Your task to perform on an android device: turn on improve location accuracy Image 0: 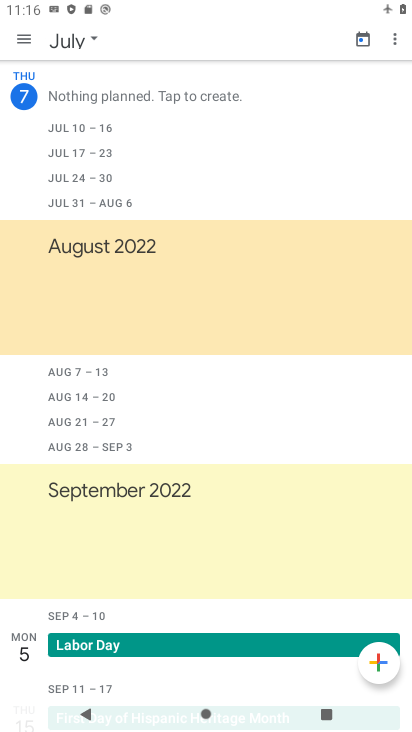
Step 0: press home button
Your task to perform on an android device: turn on improve location accuracy Image 1: 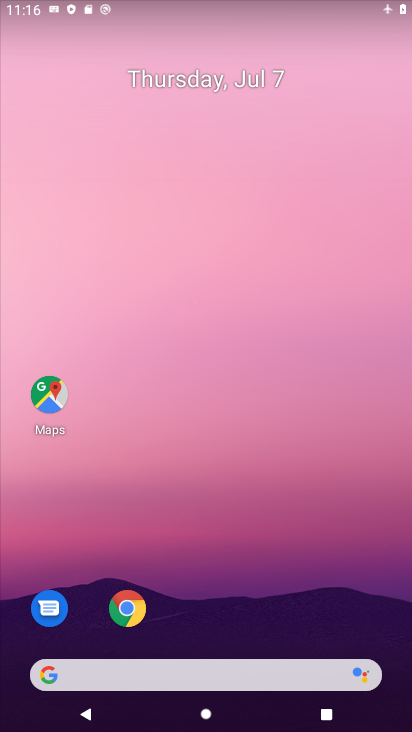
Step 1: drag from (229, 613) to (300, 7)
Your task to perform on an android device: turn on improve location accuracy Image 2: 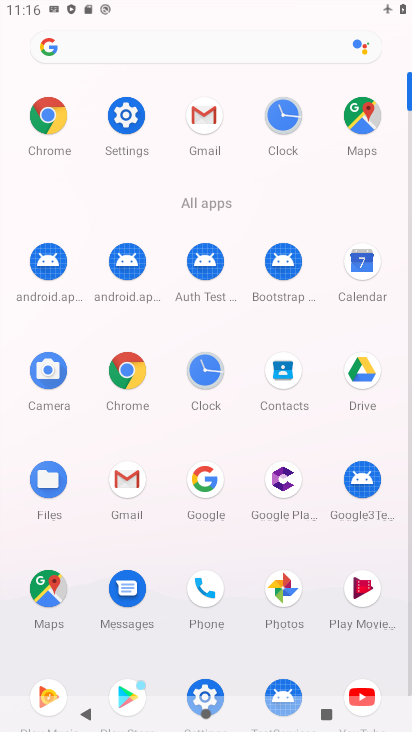
Step 2: click (206, 684)
Your task to perform on an android device: turn on improve location accuracy Image 3: 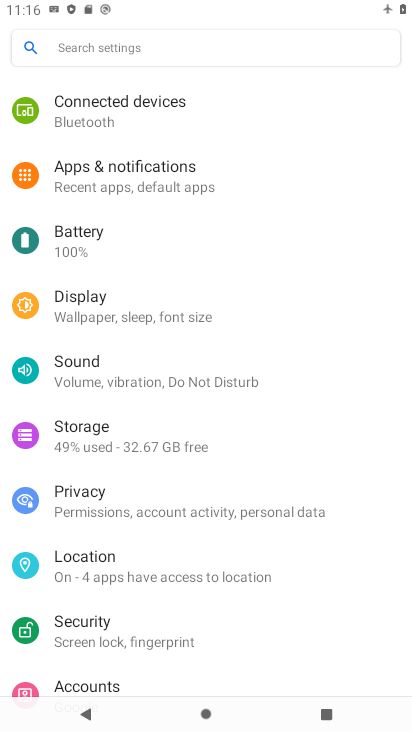
Step 3: click (132, 570)
Your task to perform on an android device: turn on improve location accuracy Image 4: 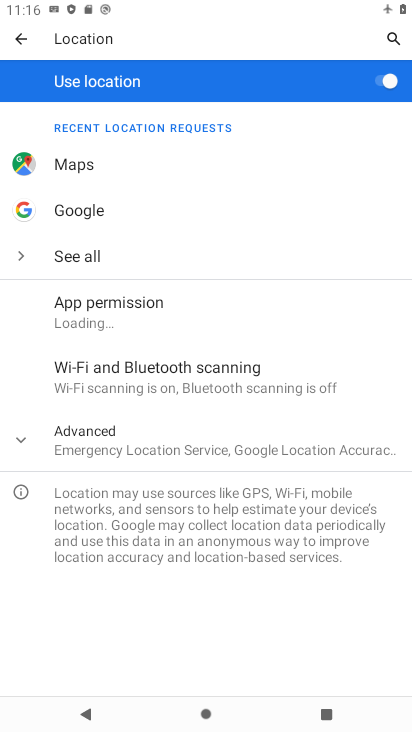
Step 4: click (146, 431)
Your task to perform on an android device: turn on improve location accuracy Image 5: 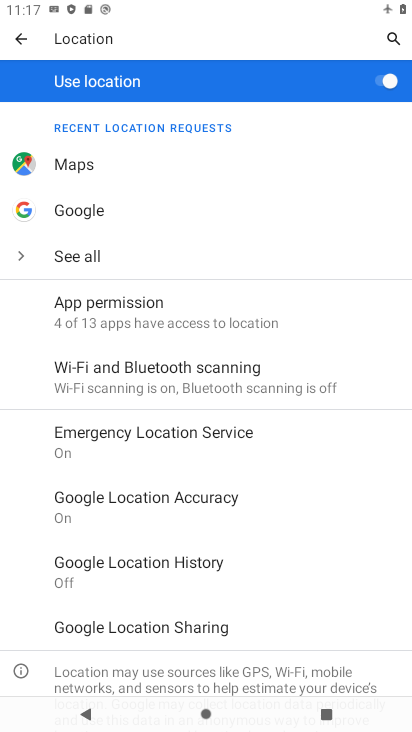
Step 5: click (178, 501)
Your task to perform on an android device: turn on improve location accuracy Image 6: 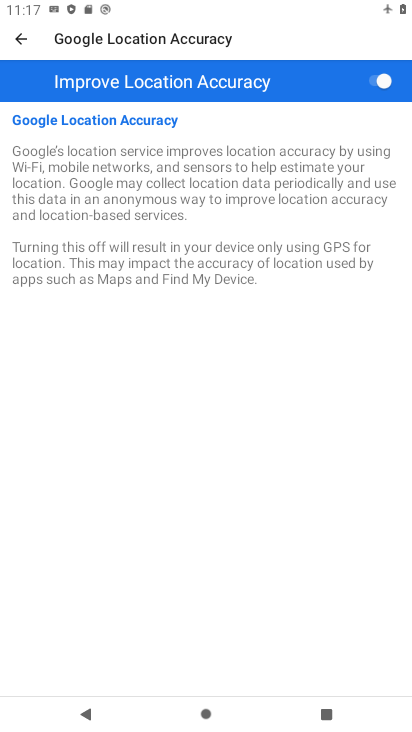
Step 6: task complete